Your task to perform on an android device: Open internet settings Image 0: 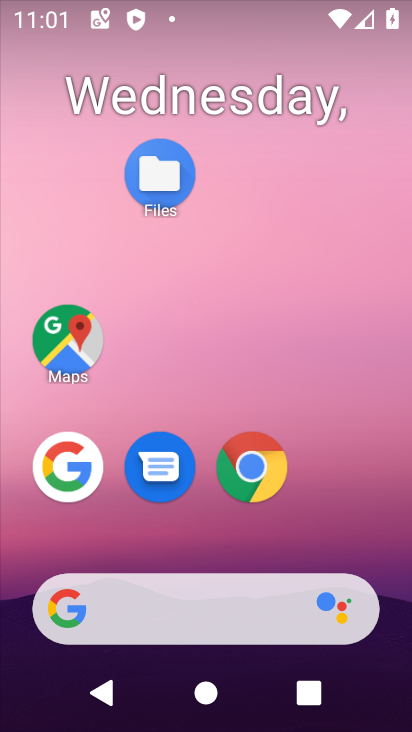
Step 0: drag from (210, 561) to (193, 20)
Your task to perform on an android device: Open internet settings Image 1: 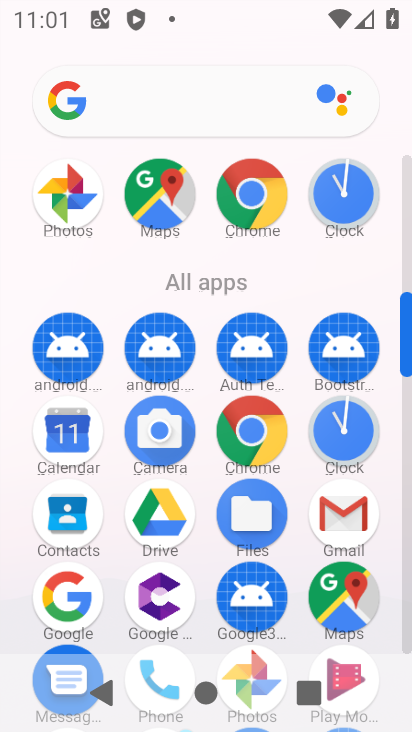
Step 1: drag from (202, 554) to (155, 153)
Your task to perform on an android device: Open internet settings Image 2: 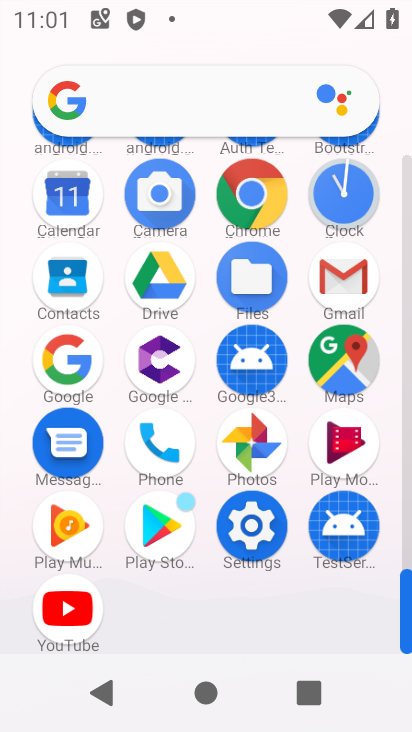
Step 2: click (260, 531)
Your task to perform on an android device: Open internet settings Image 3: 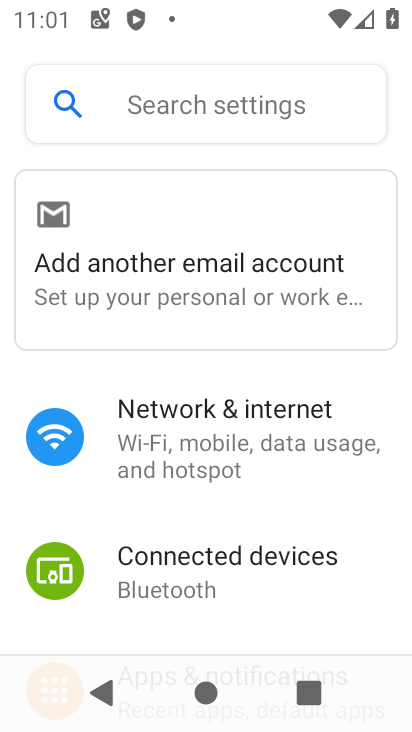
Step 3: click (197, 410)
Your task to perform on an android device: Open internet settings Image 4: 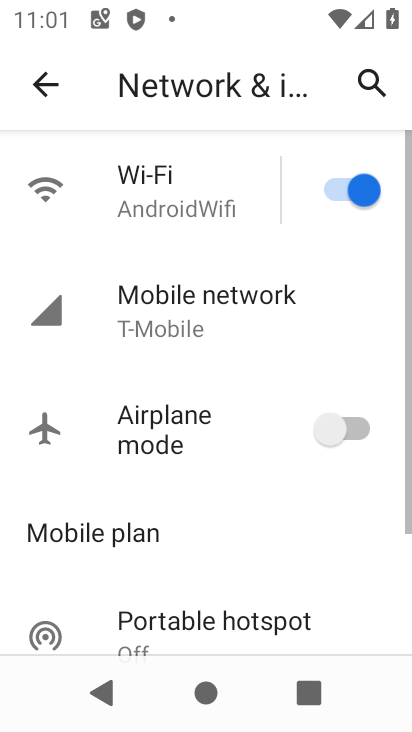
Step 4: click (201, 298)
Your task to perform on an android device: Open internet settings Image 5: 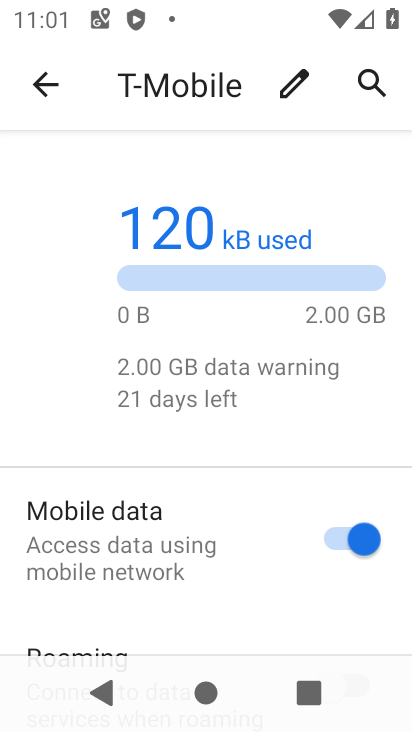
Step 5: task complete